Your task to perform on an android device: turn on sleep mode Image 0: 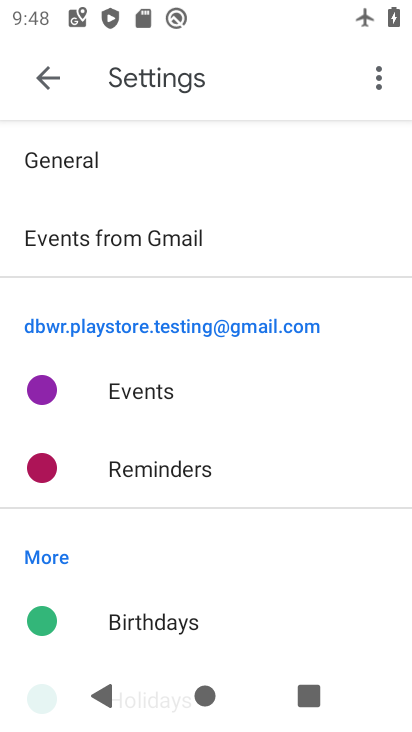
Step 0: press home button
Your task to perform on an android device: turn on sleep mode Image 1: 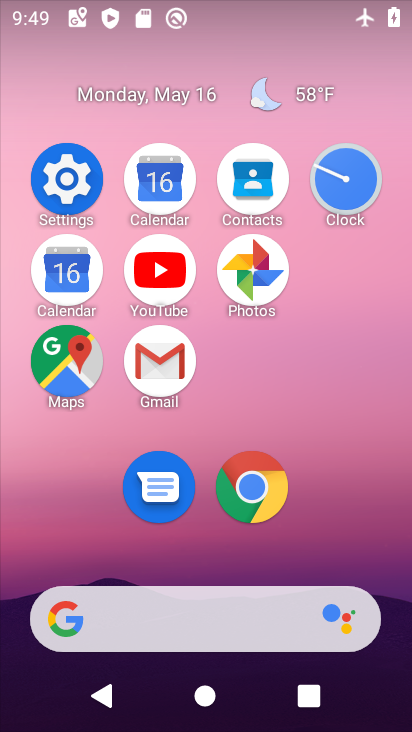
Step 1: click (60, 192)
Your task to perform on an android device: turn on sleep mode Image 2: 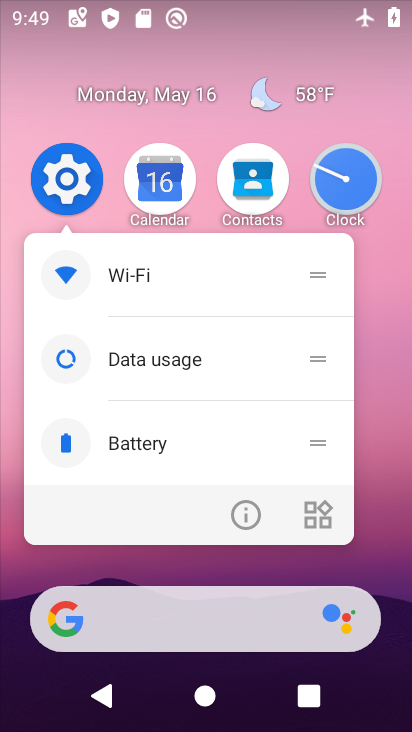
Step 2: click (70, 191)
Your task to perform on an android device: turn on sleep mode Image 3: 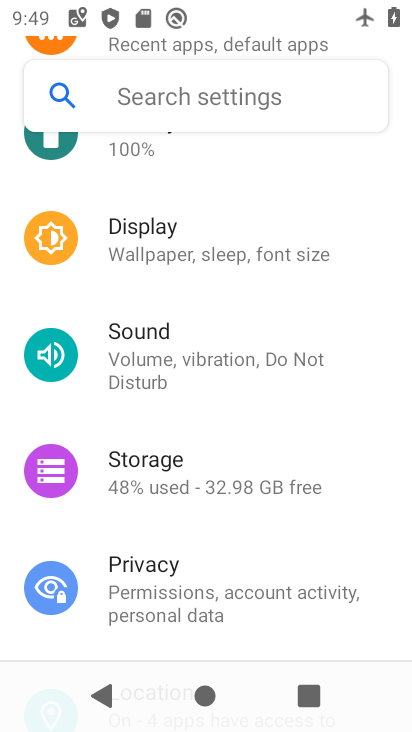
Step 3: click (225, 254)
Your task to perform on an android device: turn on sleep mode Image 4: 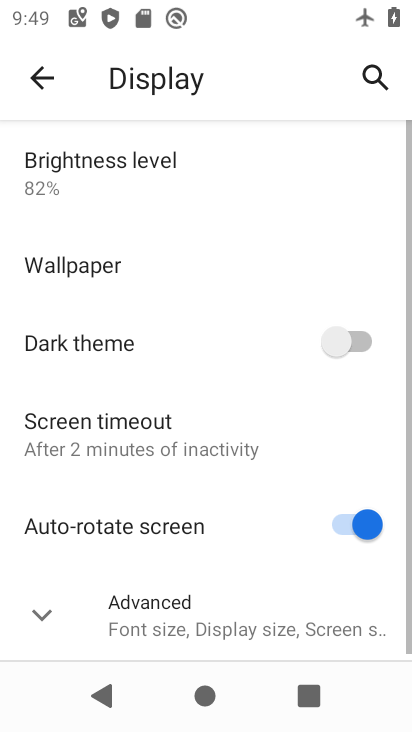
Step 4: click (120, 459)
Your task to perform on an android device: turn on sleep mode Image 5: 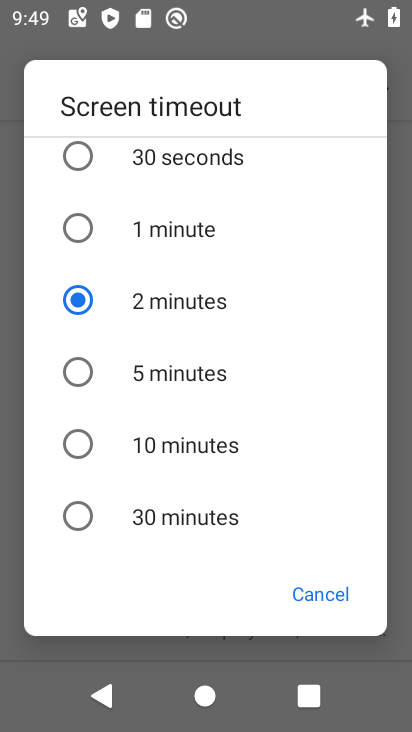
Step 5: task complete